Your task to perform on an android device: Go to Google Image 0: 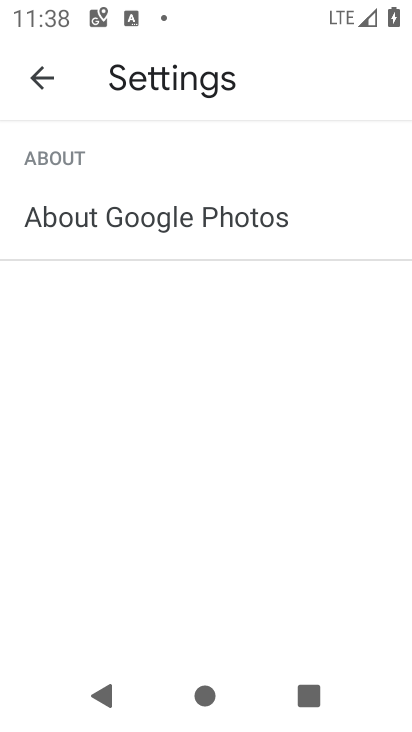
Step 0: drag from (271, 611) to (273, 134)
Your task to perform on an android device: Go to Google Image 1: 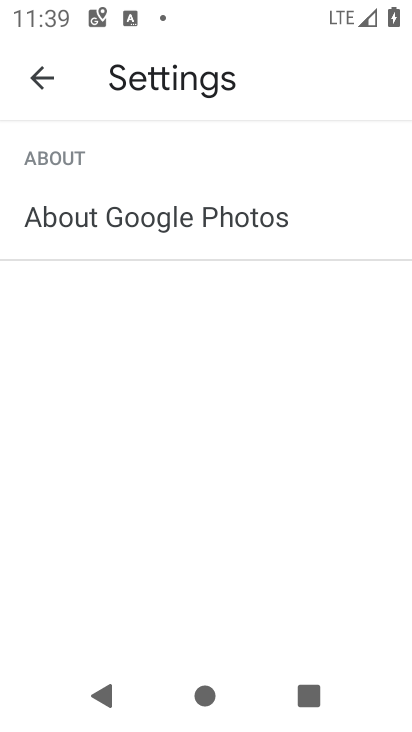
Step 1: press home button
Your task to perform on an android device: Go to Google Image 2: 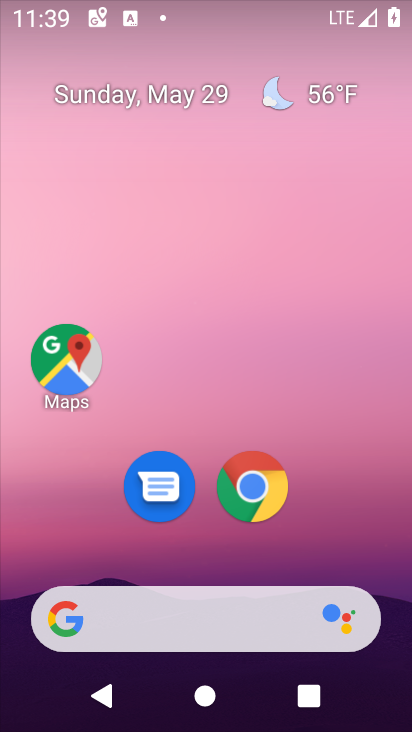
Step 2: drag from (213, 548) to (262, 0)
Your task to perform on an android device: Go to Google Image 3: 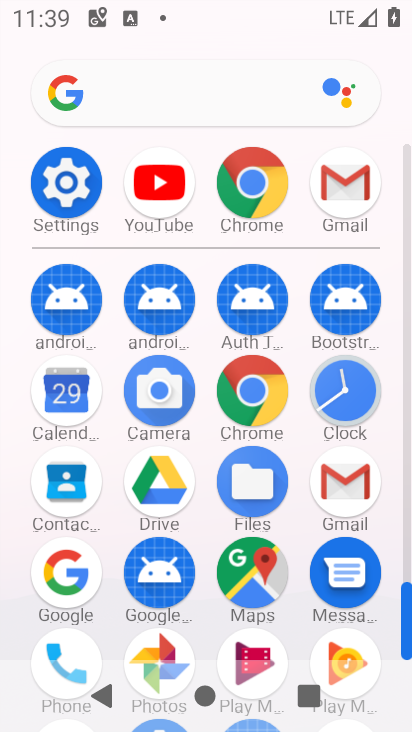
Step 3: click (74, 577)
Your task to perform on an android device: Go to Google Image 4: 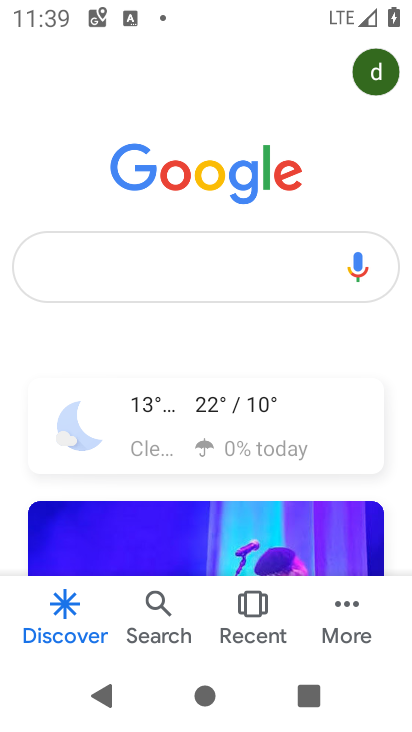
Step 4: task complete